Your task to perform on an android device: empty trash in google photos Image 0: 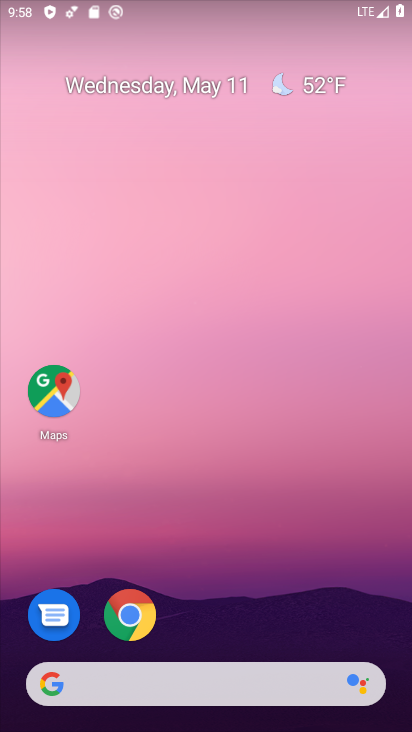
Step 0: drag from (276, 610) to (232, 187)
Your task to perform on an android device: empty trash in google photos Image 1: 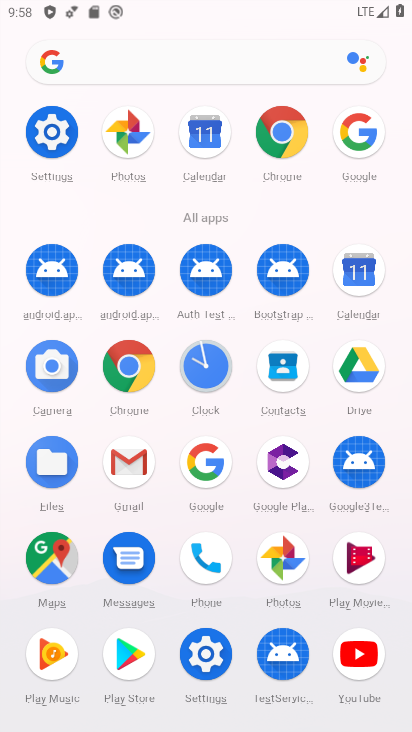
Step 1: click (128, 130)
Your task to perform on an android device: empty trash in google photos Image 2: 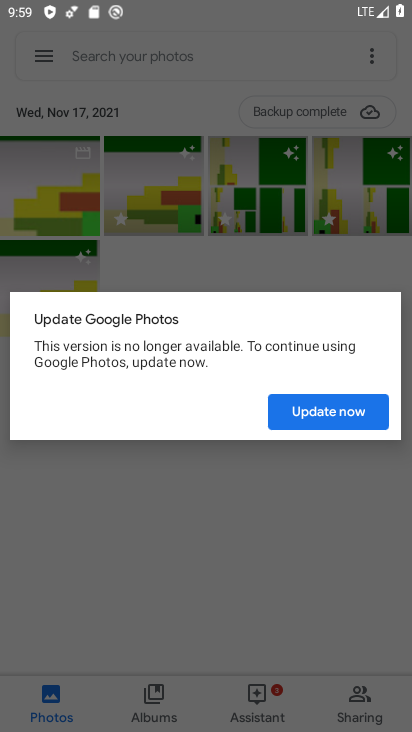
Step 2: click (315, 416)
Your task to perform on an android device: empty trash in google photos Image 3: 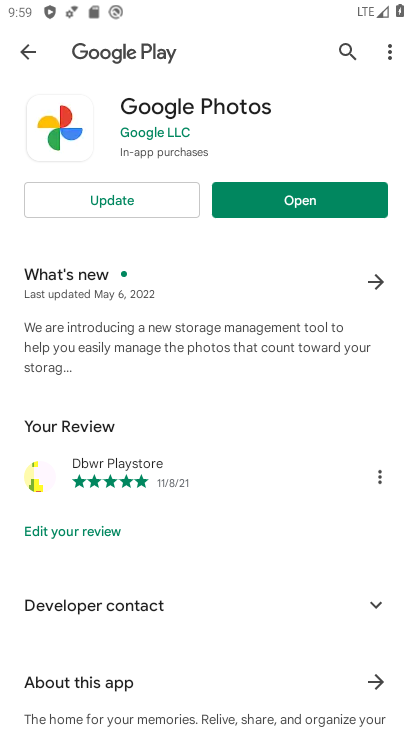
Step 3: click (114, 193)
Your task to perform on an android device: empty trash in google photos Image 4: 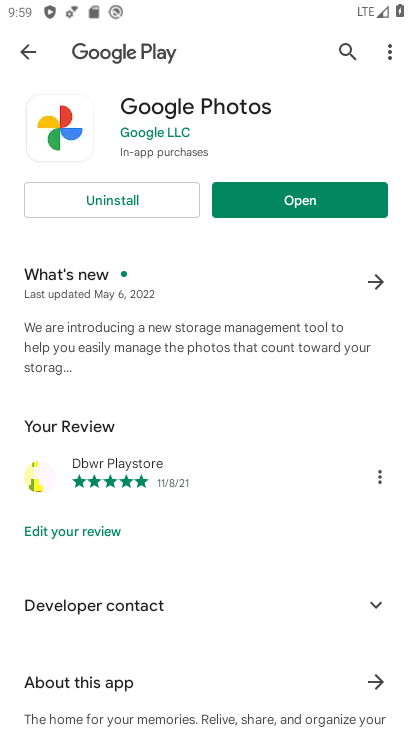
Step 4: click (294, 200)
Your task to perform on an android device: empty trash in google photos Image 5: 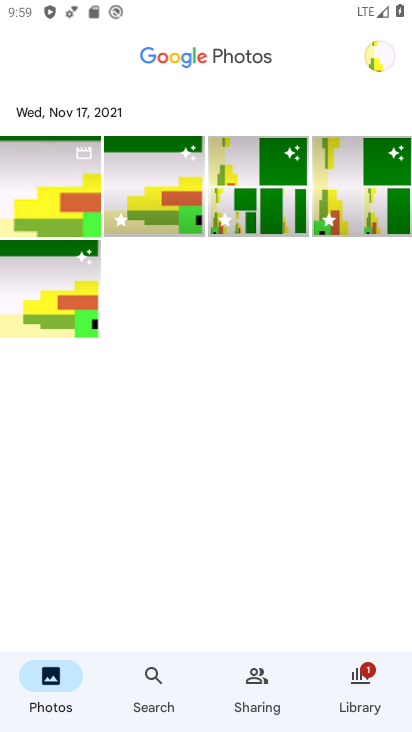
Step 5: click (361, 676)
Your task to perform on an android device: empty trash in google photos Image 6: 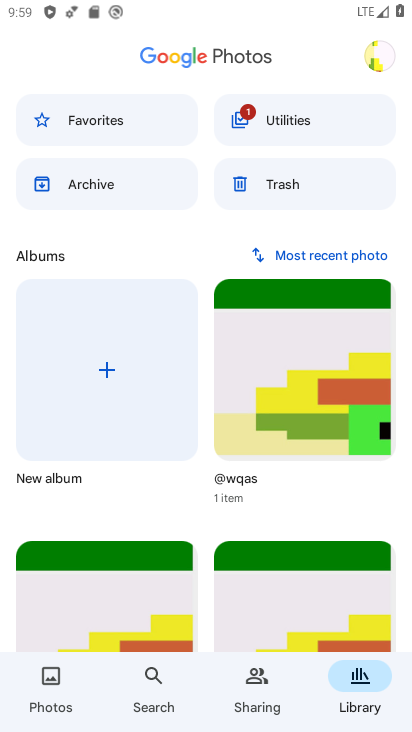
Step 6: click (279, 185)
Your task to perform on an android device: empty trash in google photos Image 7: 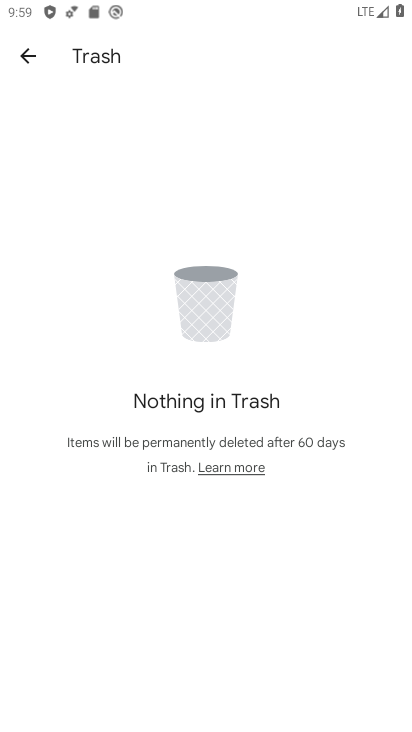
Step 7: task complete